Your task to perform on an android device: Open Chrome and go to the settings page Image 0: 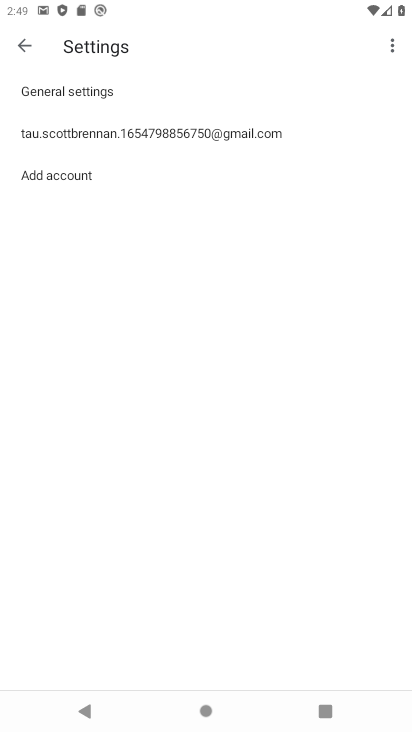
Step 0: press back button
Your task to perform on an android device: Open Chrome and go to the settings page Image 1: 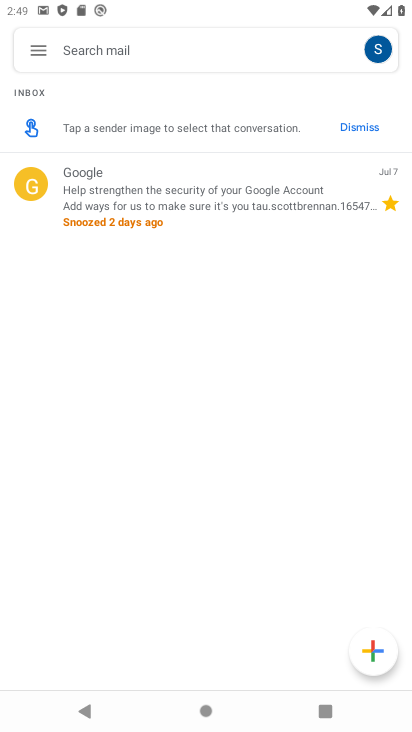
Step 1: press home button
Your task to perform on an android device: Open Chrome and go to the settings page Image 2: 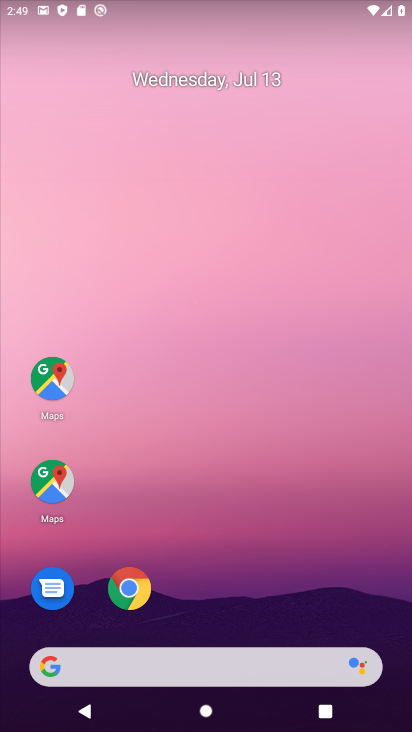
Step 2: drag from (260, 585) to (202, 202)
Your task to perform on an android device: Open Chrome and go to the settings page Image 3: 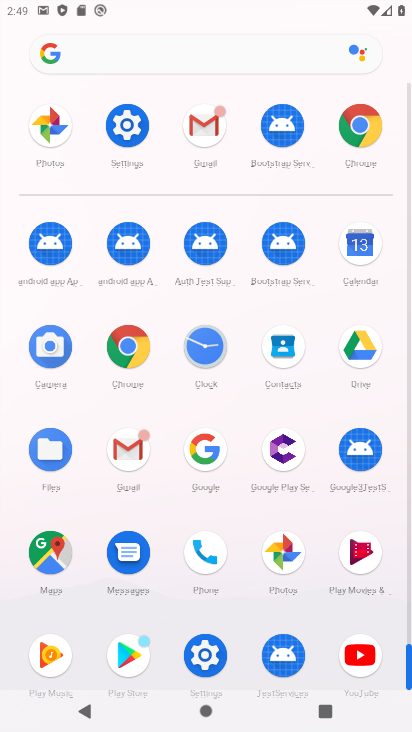
Step 3: click (132, 337)
Your task to perform on an android device: Open Chrome and go to the settings page Image 4: 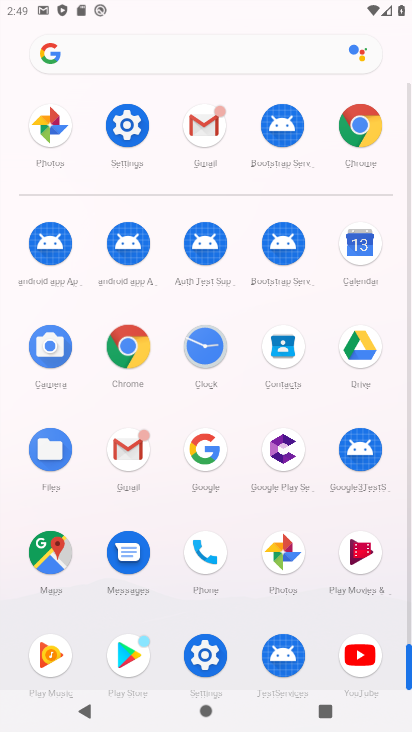
Step 4: click (133, 337)
Your task to perform on an android device: Open Chrome and go to the settings page Image 5: 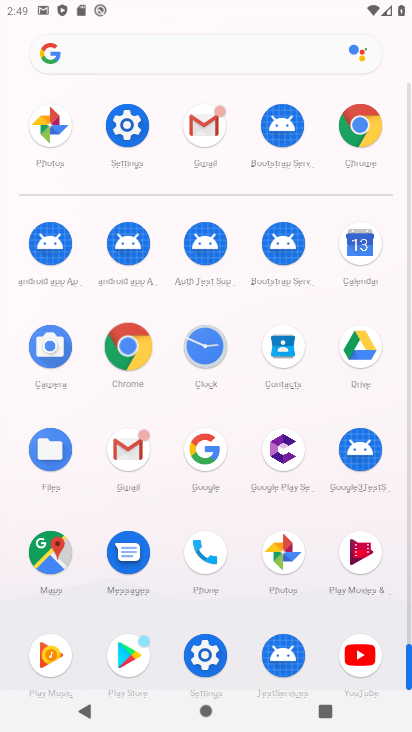
Step 5: click (135, 338)
Your task to perform on an android device: Open Chrome and go to the settings page Image 6: 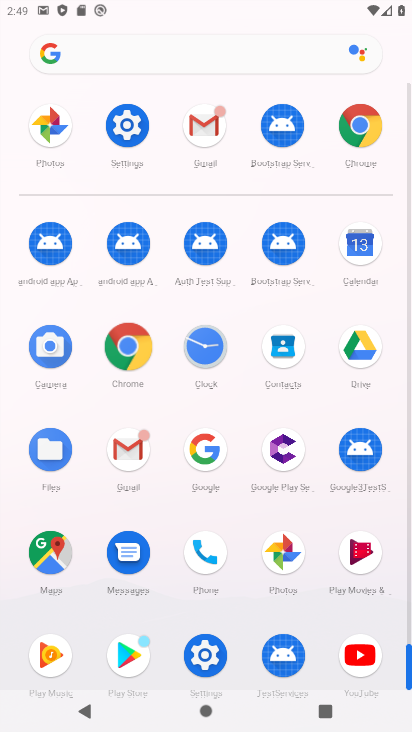
Step 6: click (135, 338)
Your task to perform on an android device: Open Chrome and go to the settings page Image 7: 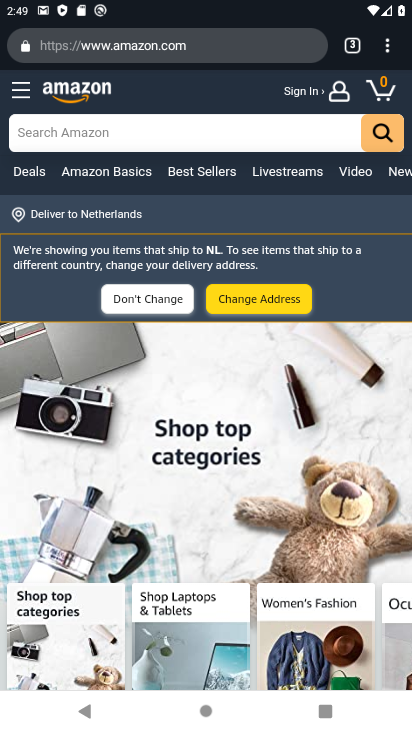
Step 7: drag from (389, 51) to (215, 549)
Your task to perform on an android device: Open Chrome and go to the settings page Image 8: 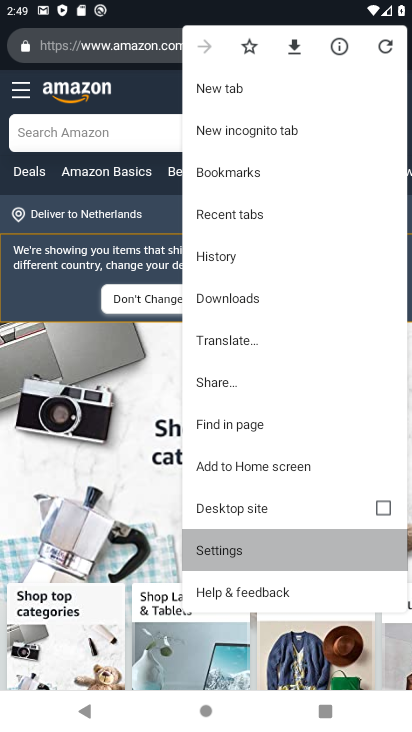
Step 8: click (223, 543)
Your task to perform on an android device: Open Chrome and go to the settings page Image 9: 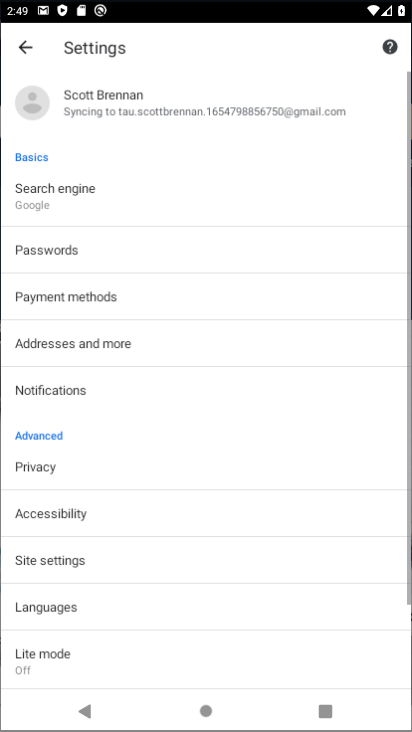
Step 9: click (219, 544)
Your task to perform on an android device: Open Chrome and go to the settings page Image 10: 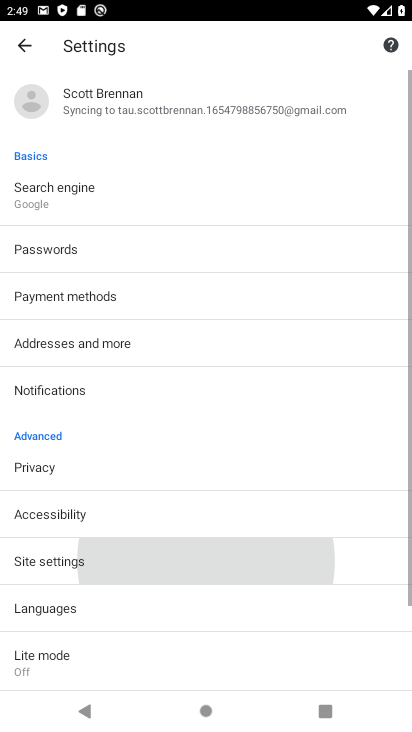
Step 10: click (219, 544)
Your task to perform on an android device: Open Chrome and go to the settings page Image 11: 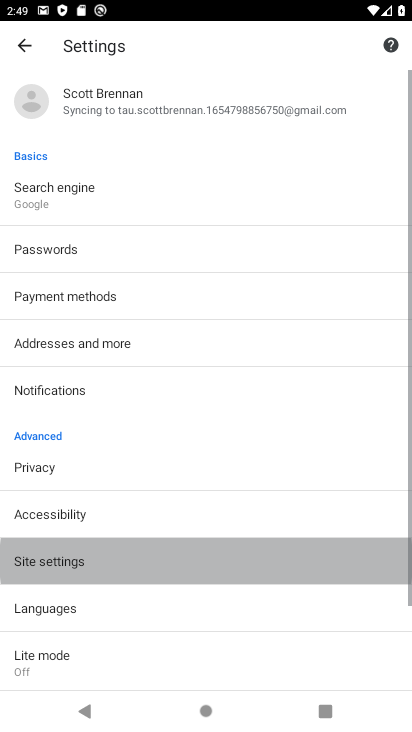
Step 11: click (220, 543)
Your task to perform on an android device: Open Chrome and go to the settings page Image 12: 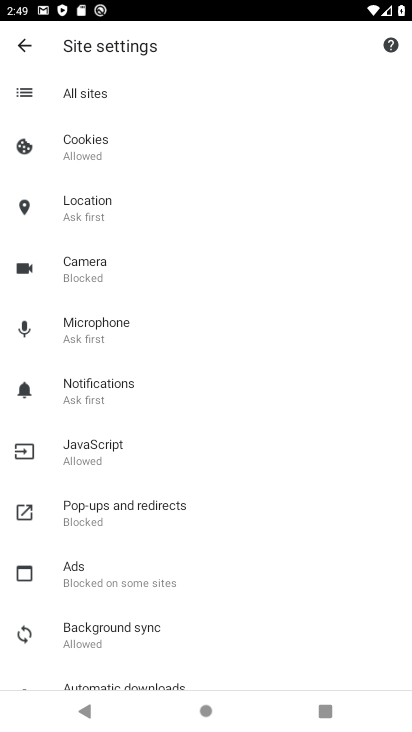
Step 12: click (24, 44)
Your task to perform on an android device: Open Chrome and go to the settings page Image 13: 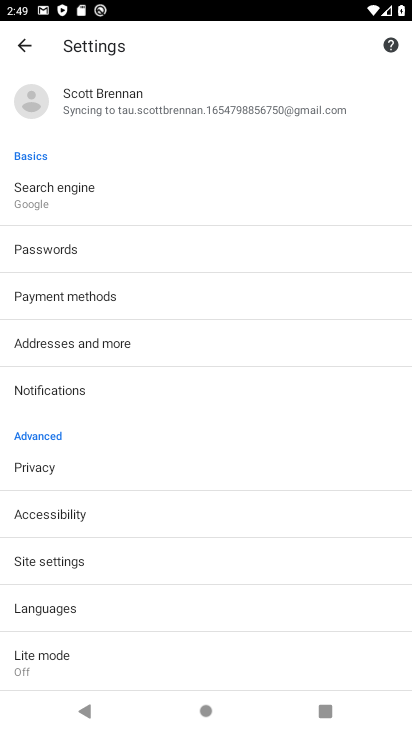
Step 13: task complete